Your task to perform on an android device: Search for sushi restaurants on Maps Image 0: 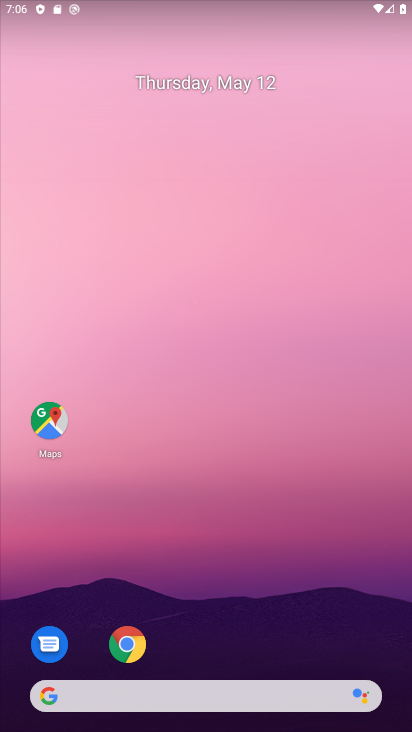
Step 0: drag from (287, 722) to (313, 169)
Your task to perform on an android device: Search for sushi restaurants on Maps Image 1: 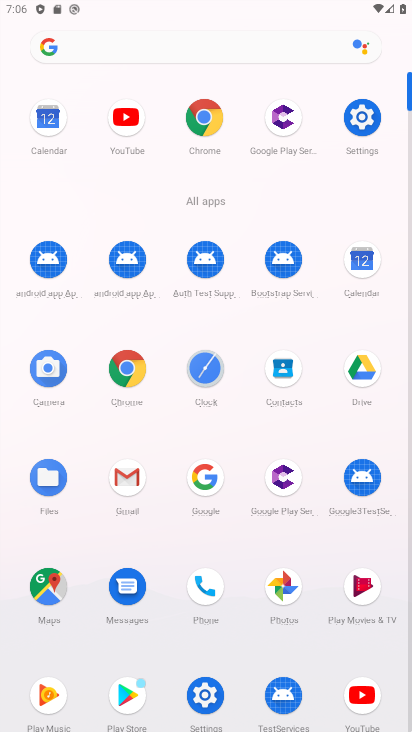
Step 1: click (30, 596)
Your task to perform on an android device: Search for sushi restaurants on Maps Image 2: 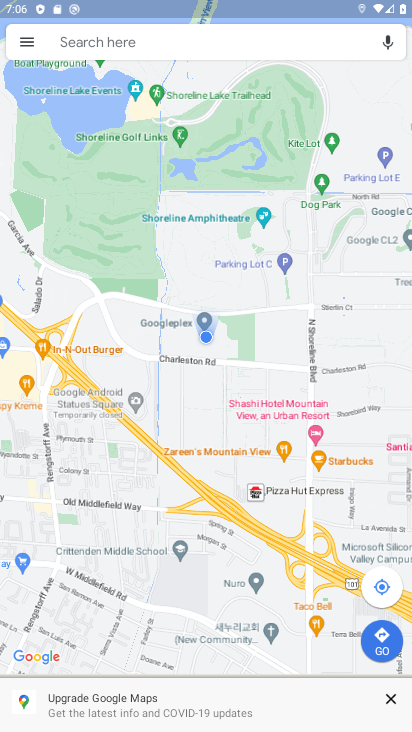
Step 2: click (132, 51)
Your task to perform on an android device: Search for sushi restaurants on Maps Image 3: 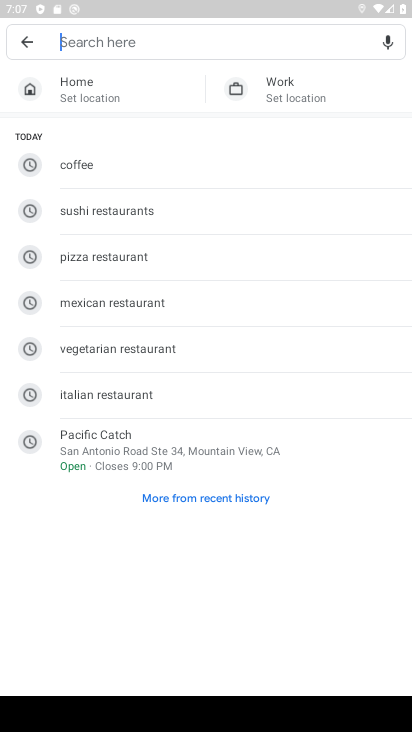
Step 3: click (102, 201)
Your task to perform on an android device: Search for sushi restaurants on Maps Image 4: 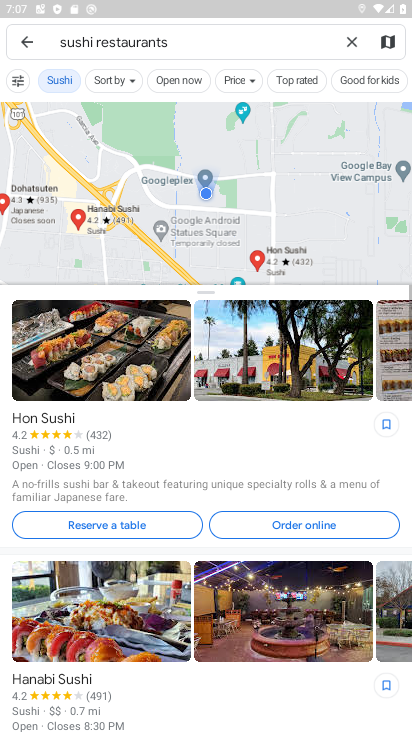
Step 4: click (160, 176)
Your task to perform on an android device: Search for sushi restaurants on Maps Image 5: 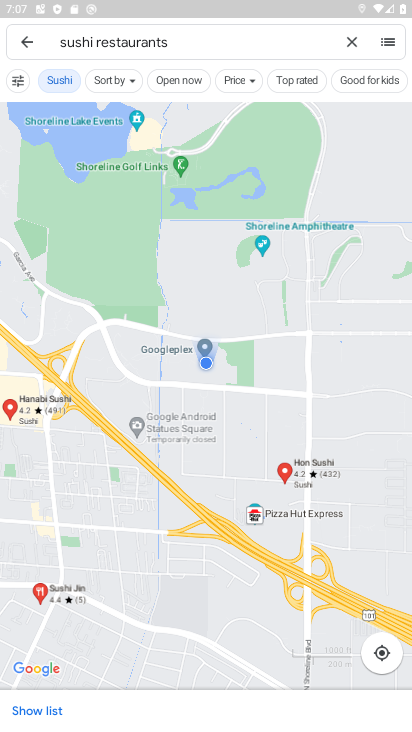
Step 5: task complete